Your task to perform on an android device: turn off sleep mode Image 0: 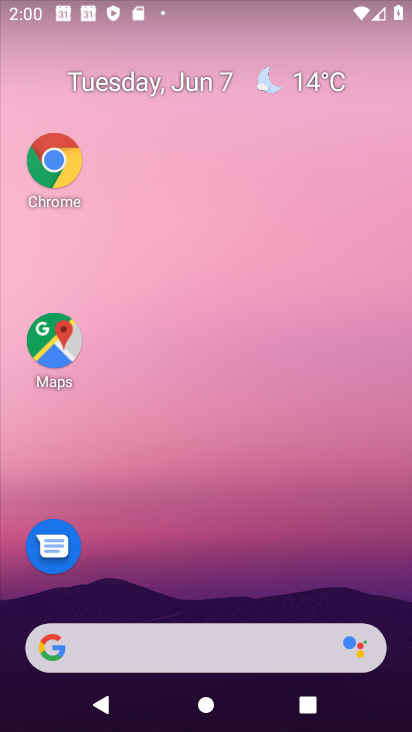
Step 0: drag from (191, 425) to (206, 60)
Your task to perform on an android device: turn off sleep mode Image 1: 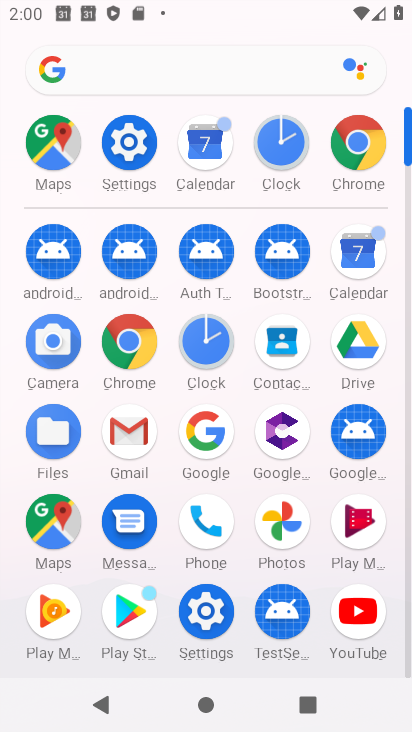
Step 1: click (123, 149)
Your task to perform on an android device: turn off sleep mode Image 2: 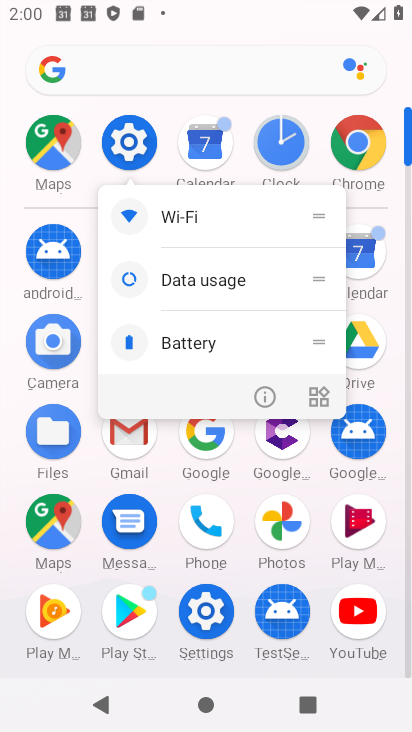
Step 2: click (272, 394)
Your task to perform on an android device: turn off sleep mode Image 3: 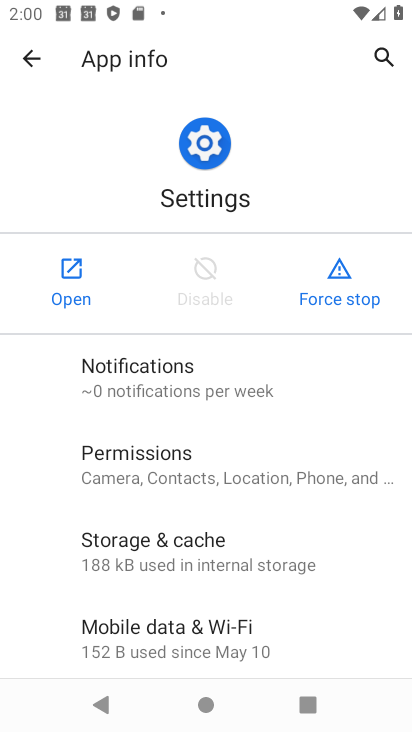
Step 3: click (82, 300)
Your task to perform on an android device: turn off sleep mode Image 4: 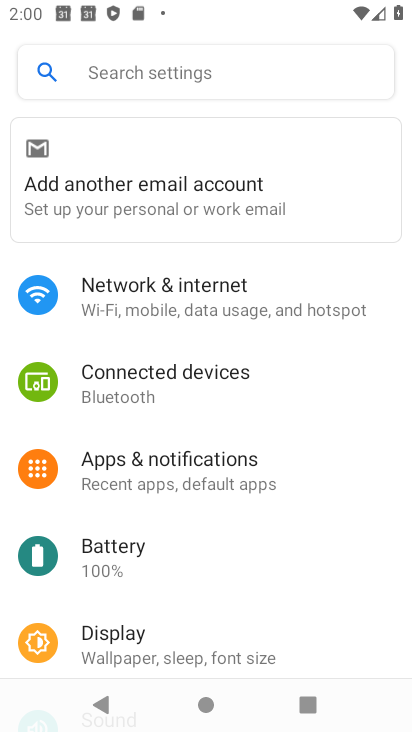
Step 4: drag from (208, 580) to (201, 175)
Your task to perform on an android device: turn off sleep mode Image 5: 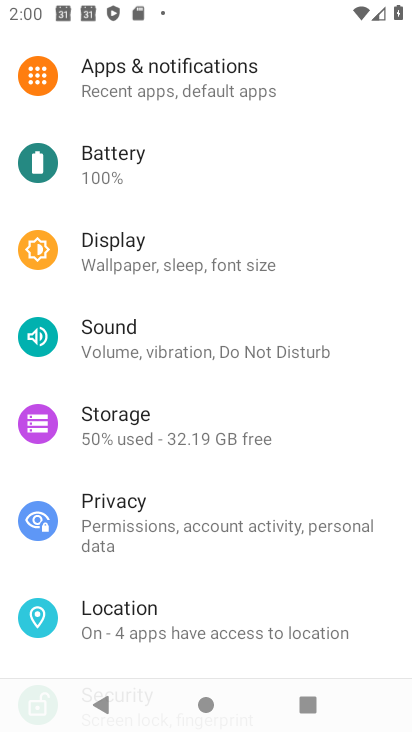
Step 5: drag from (165, 511) to (288, 535)
Your task to perform on an android device: turn off sleep mode Image 6: 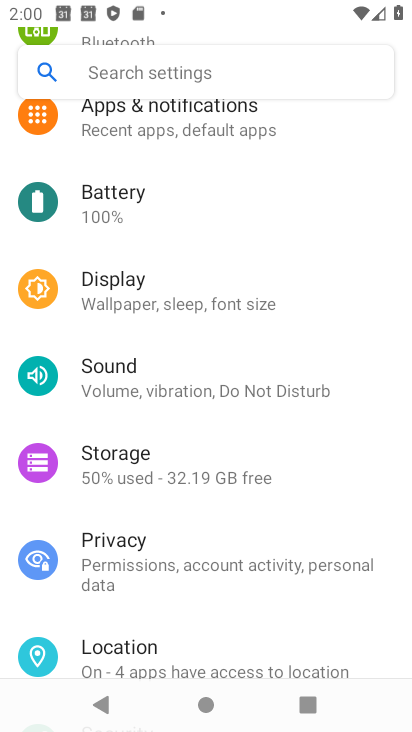
Step 6: click (174, 299)
Your task to perform on an android device: turn off sleep mode Image 7: 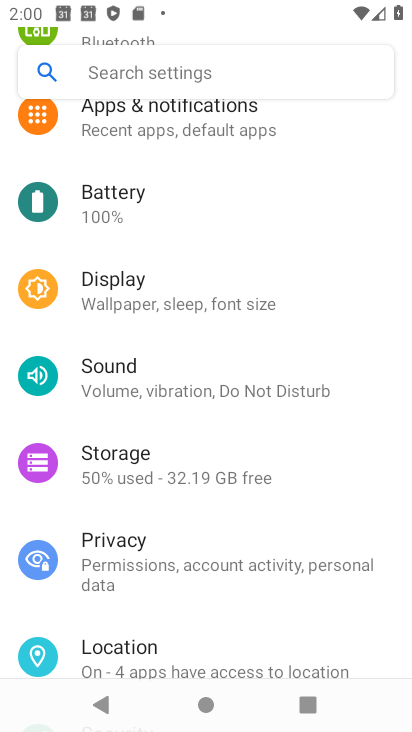
Step 7: click (174, 299)
Your task to perform on an android device: turn off sleep mode Image 8: 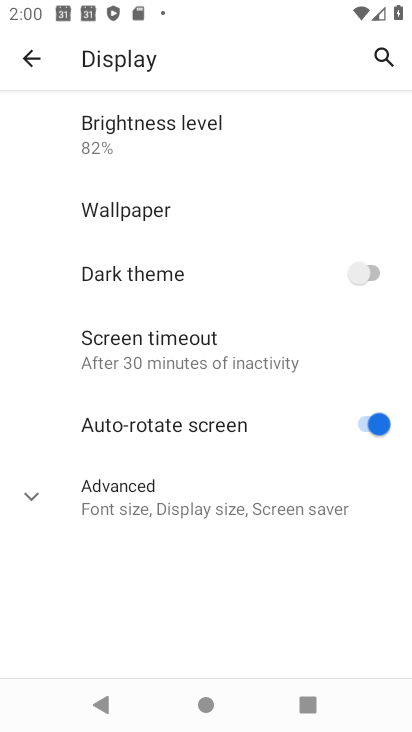
Step 8: click (204, 361)
Your task to perform on an android device: turn off sleep mode Image 9: 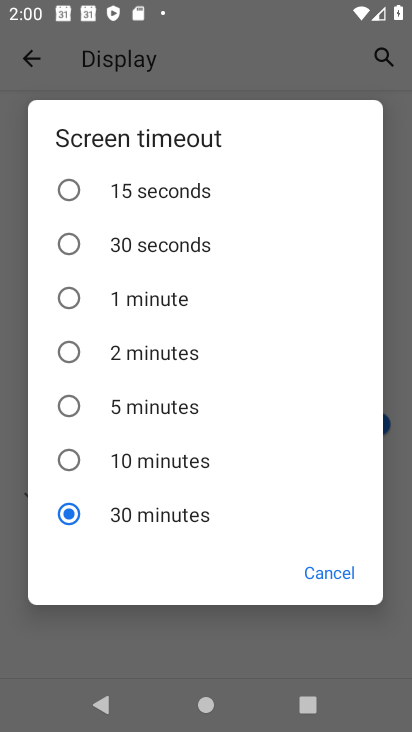
Step 9: task complete